Your task to perform on an android device: turn on the 12-hour format for clock Image 0: 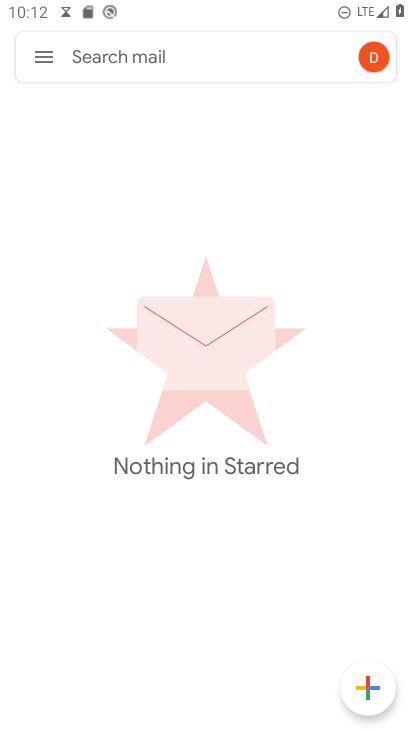
Step 0: click (39, 53)
Your task to perform on an android device: turn on the 12-hour format for clock Image 1: 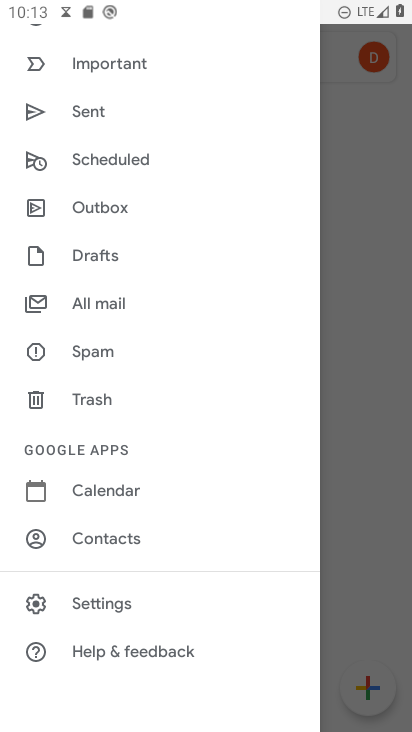
Step 1: press home button
Your task to perform on an android device: turn on the 12-hour format for clock Image 2: 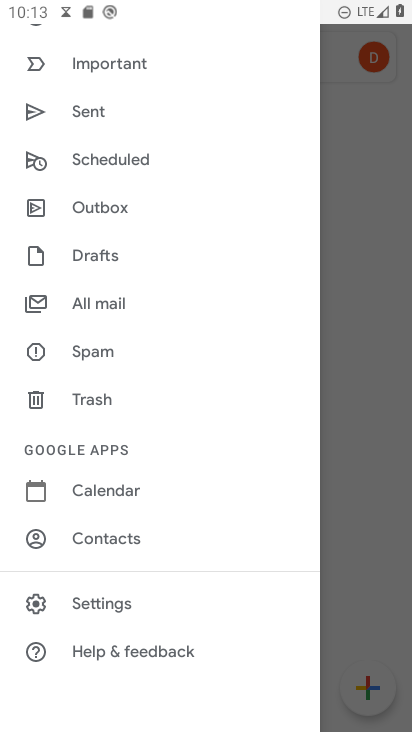
Step 2: press home button
Your task to perform on an android device: turn on the 12-hour format for clock Image 3: 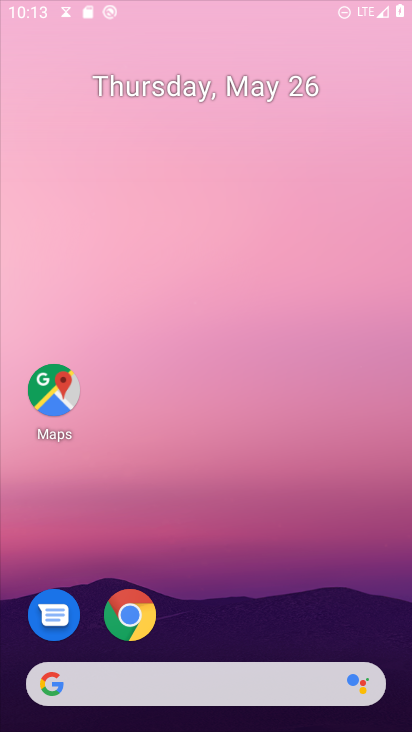
Step 3: press home button
Your task to perform on an android device: turn on the 12-hour format for clock Image 4: 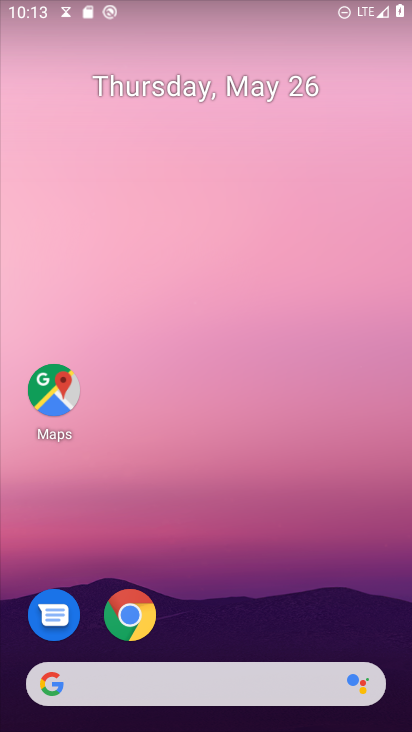
Step 4: click (155, 435)
Your task to perform on an android device: turn on the 12-hour format for clock Image 5: 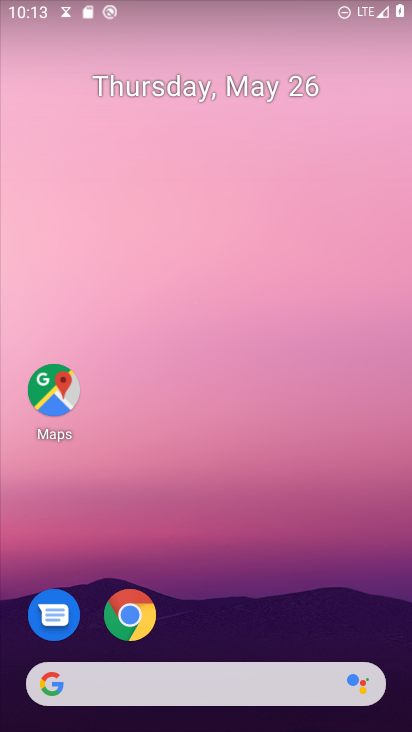
Step 5: drag from (230, 605) to (238, 562)
Your task to perform on an android device: turn on the 12-hour format for clock Image 6: 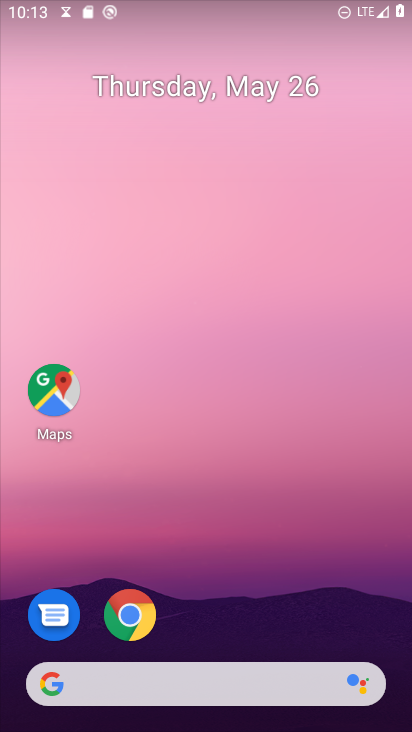
Step 6: drag from (225, 624) to (208, 422)
Your task to perform on an android device: turn on the 12-hour format for clock Image 7: 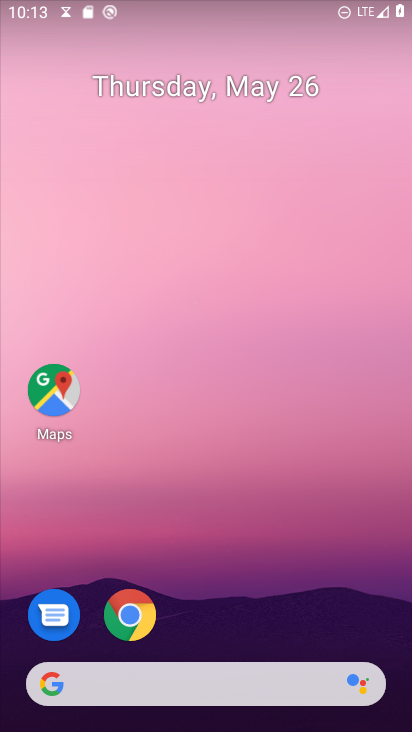
Step 7: drag from (220, 655) to (230, 235)
Your task to perform on an android device: turn on the 12-hour format for clock Image 8: 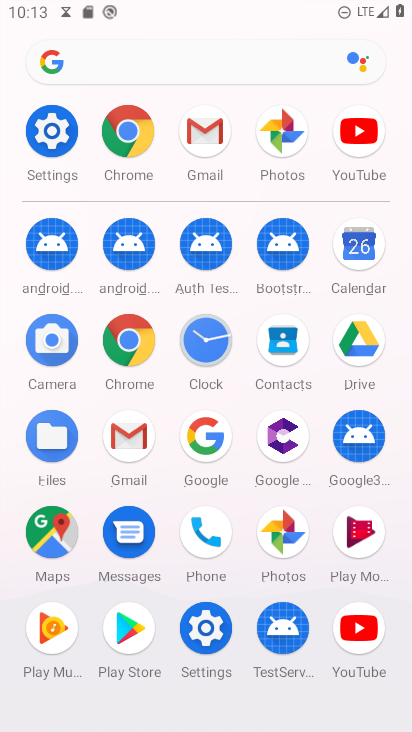
Step 8: click (210, 340)
Your task to perform on an android device: turn on the 12-hour format for clock Image 9: 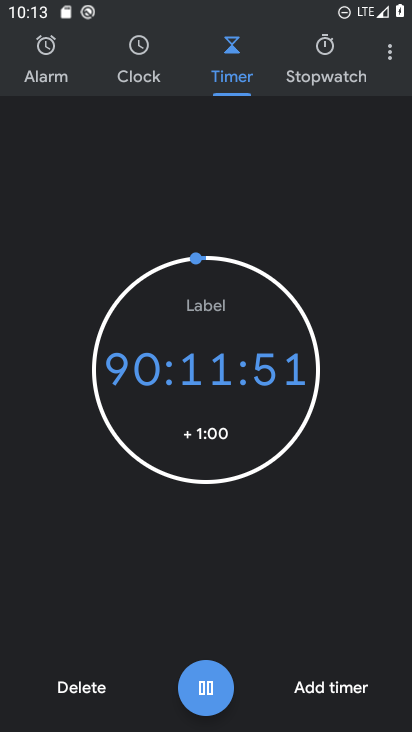
Step 9: click (385, 39)
Your task to perform on an android device: turn on the 12-hour format for clock Image 10: 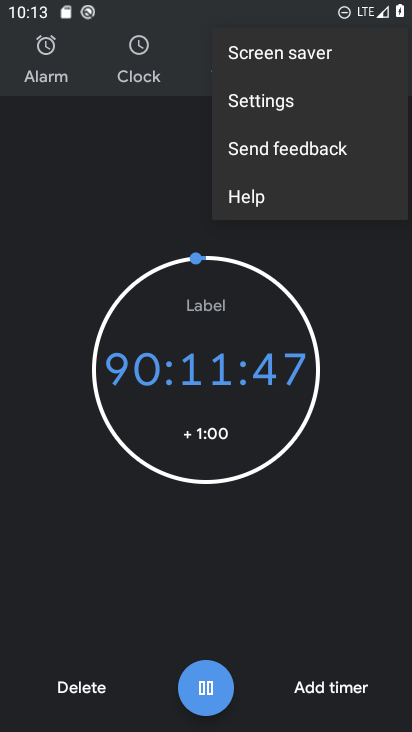
Step 10: click (264, 106)
Your task to perform on an android device: turn on the 12-hour format for clock Image 11: 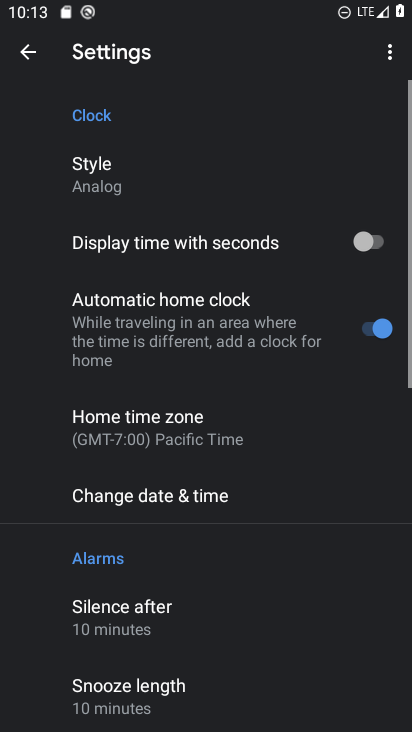
Step 11: click (207, 499)
Your task to perform on an android device: turn on the 12-hour format for clock Image 12: 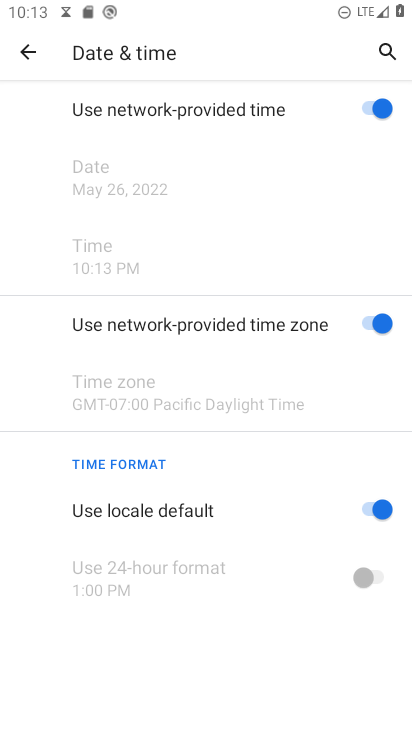
Step 12: click (366, 569)
Your task to perform on an android device: turn on the 12-hour format for clock Image 13: 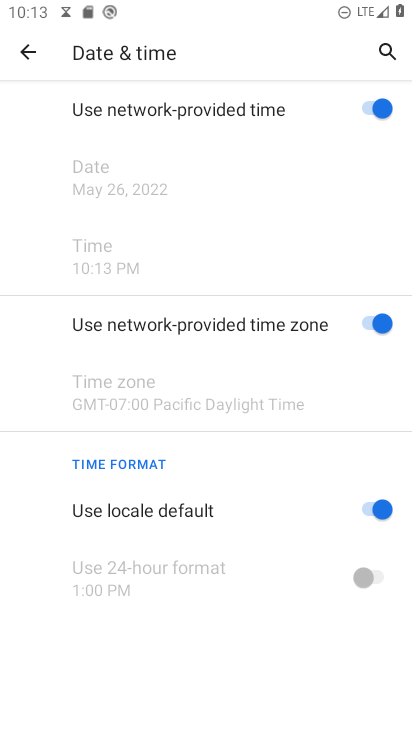
Step 13: click (366, 499)
Your task to perform on an android device: turn on the 12-hour format for clock Image 14: 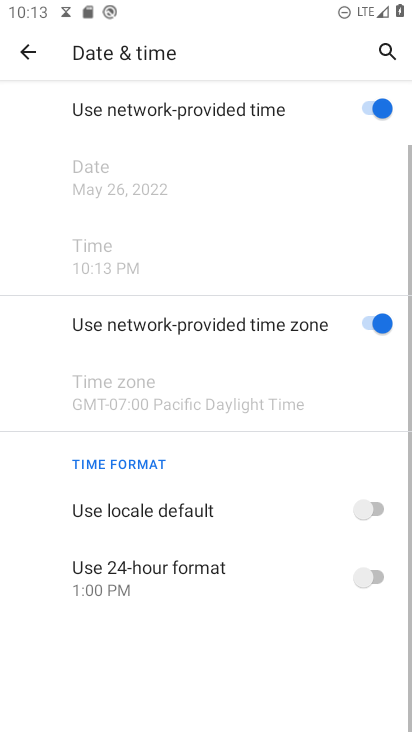
Step 14: click (369, 566)
Your task to perform on an android device: turn on the 12-hour format for clock Image 15: 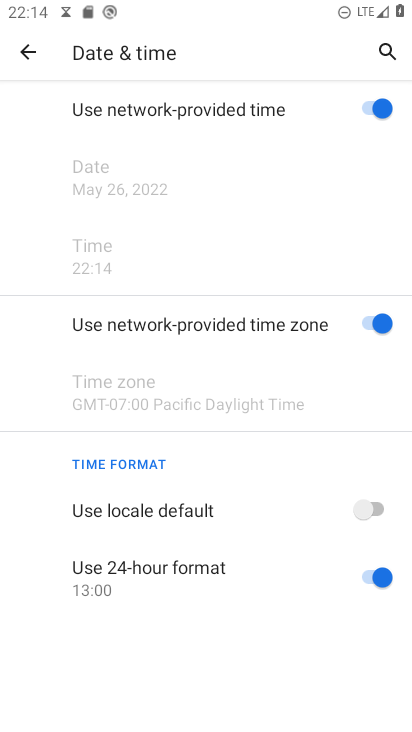
Step 15: task complete